Your task to perform on an android device: turn on notifications settings in the gmail app Image 0: 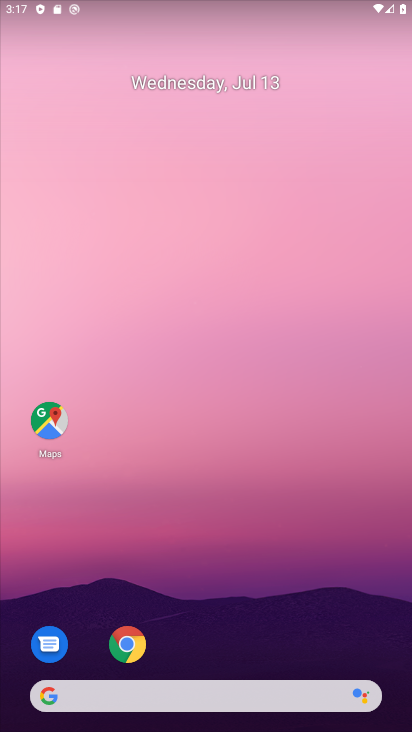
Step 0: drag from (235, 647) to (203, 123)
Your task to perform on an android device: turn on notifications settings in the gmail app Image 1: 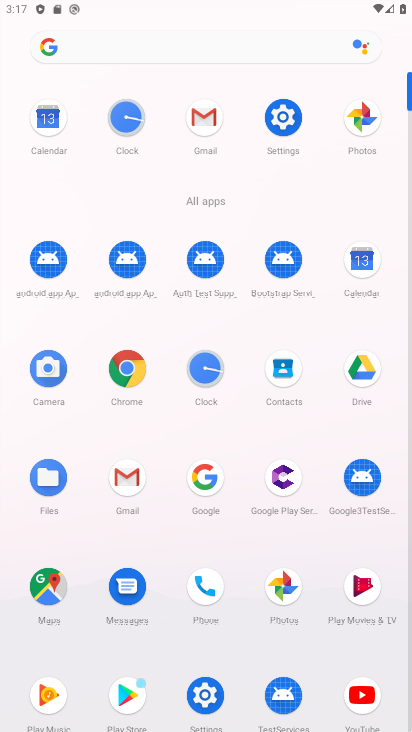
Step 1: click (218, 121)
Your task to perform on an android device: turn on notifications settings in the gmail app Image 2: 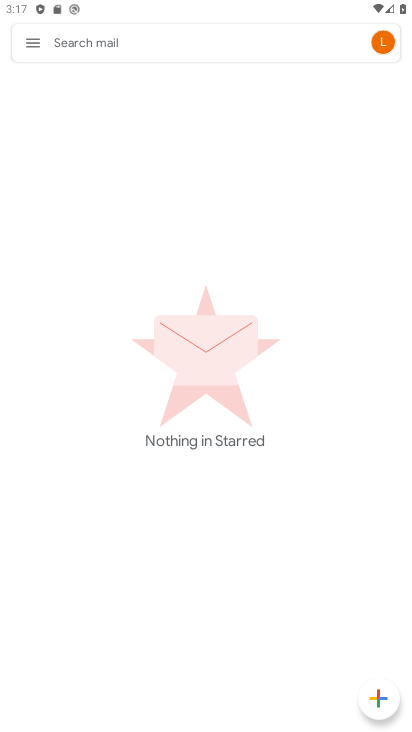
Step 2: click (24, 47)
Your task to perform on an android device: turn on notifications settings in the gmail app Image 3: 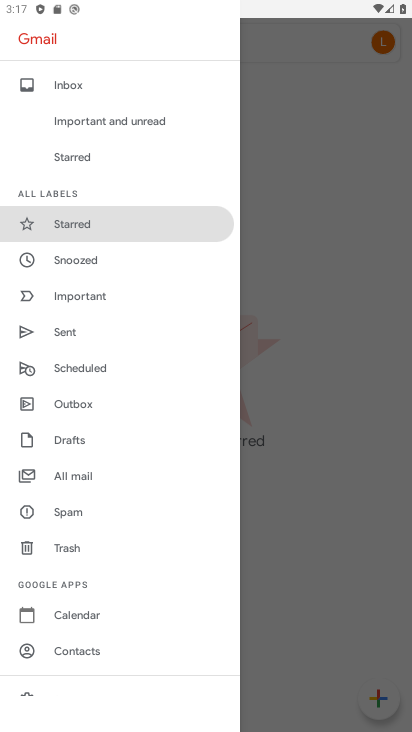
Step 3: drag from (116, 588) to (94, 404)
Your task to perform on an android device: turn on notifications settings in the gmail app Image 4: 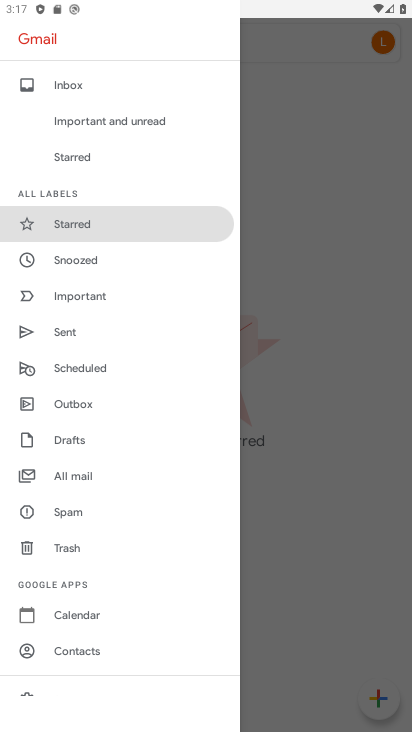
Step 4: drag from (90, 650) to (93, 449)
Your task to perform on an android device: turn on notifications settings in the gmail app Image 5: 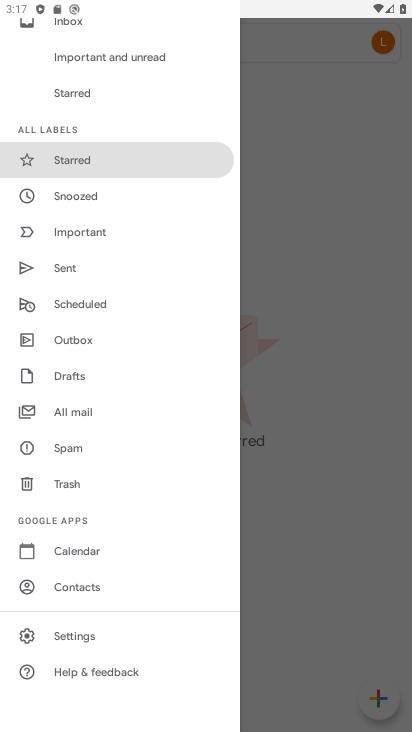
Step 5: click (83, 630)
Your task to perform on an android device: turn on notifications settings in the gmail app Image 6: 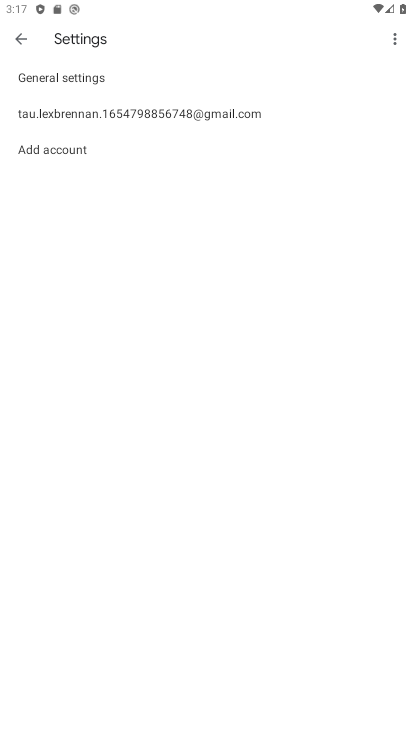
Step 6: click (138, 107)
Your task to perform on an android device: turn on notifications settings in the gmail app Image 7: 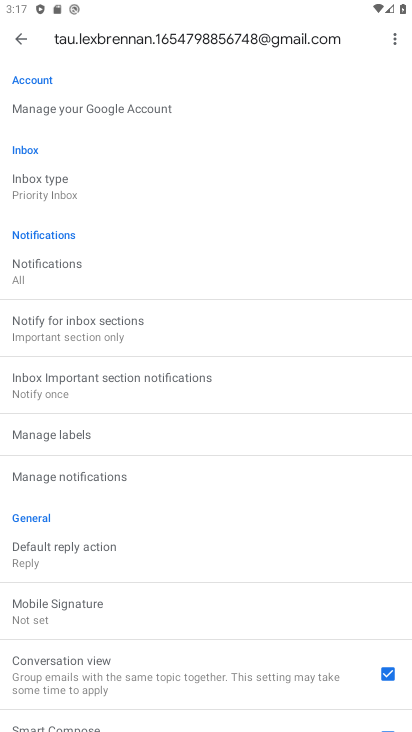
Step 7: click (106, 487)
Your task to perform on an android device: turn on notifications settings in the gmail app Image 8: 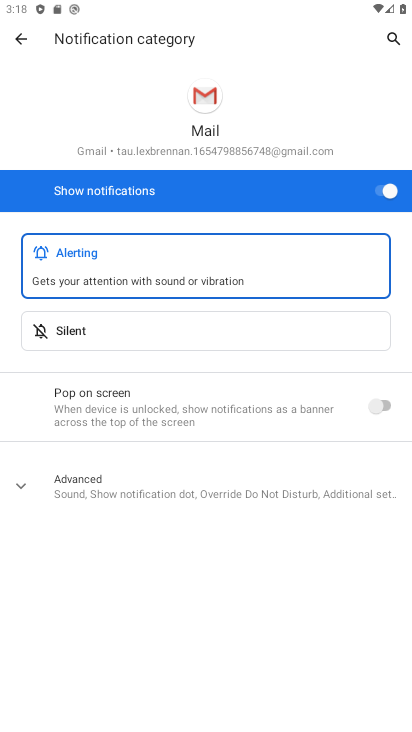
Step 8: task complete